Your task to perform on an android device: Show me the alarms in the clock app Image 0: 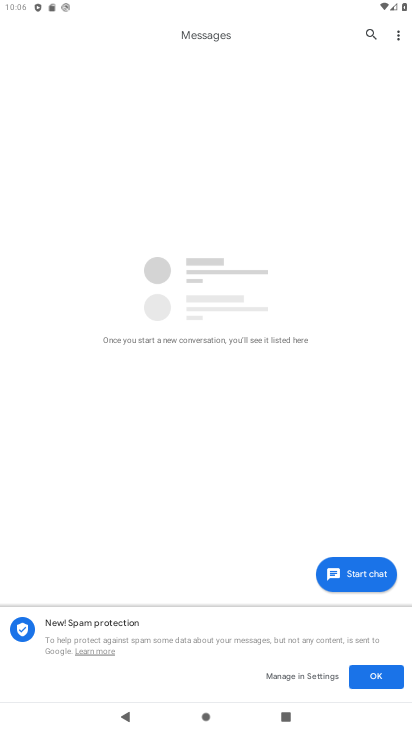
Step 0: press home button
Your task to perform on an android device: Show me the alarms in the clock app Image 1: 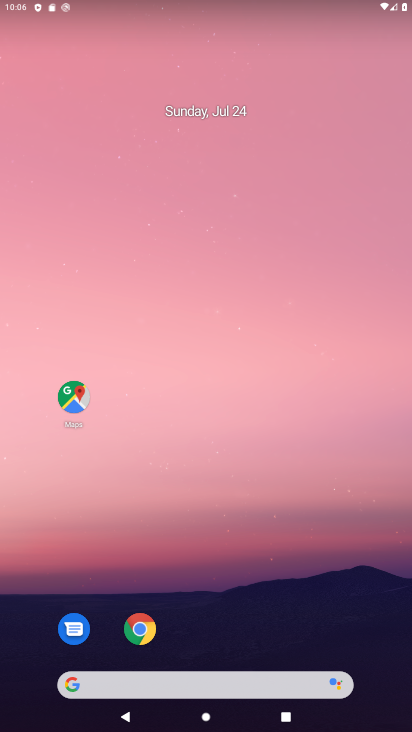
Step 1: drag from (186, 689) to (253, 51)
Your task to perform on an android device: Show me the alarms in the clock app Image 2: 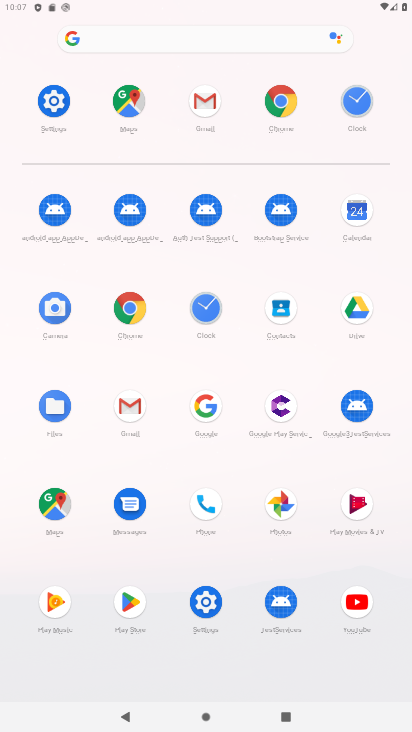
Step 2: click (358, 103)
Your task to perform on an android device: Show me the alarms in the clock app Image 3: 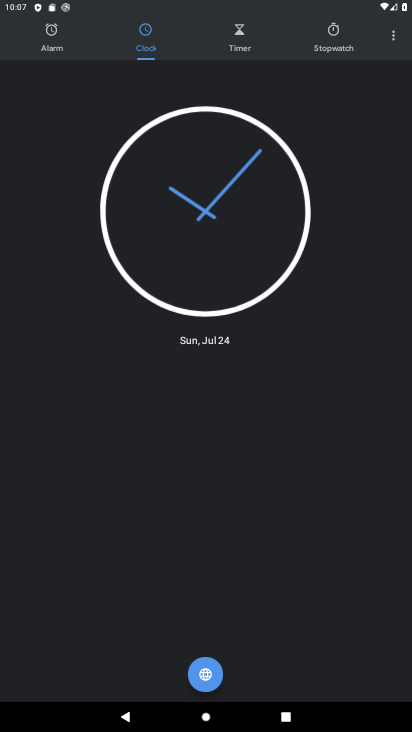
Step 3: click (54, 30)
Your task to perform on an android device: Show me the alarms in the clock app Image 4: 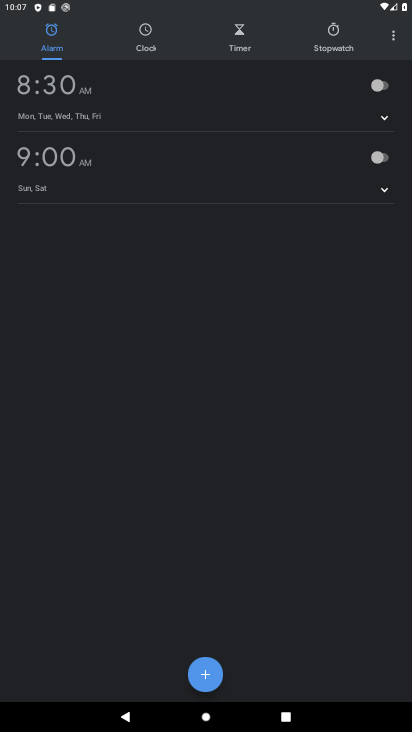
Step 4: click (205, 484)
Your task to perform on an android device: Show me the alarms in the clock app Image 5: 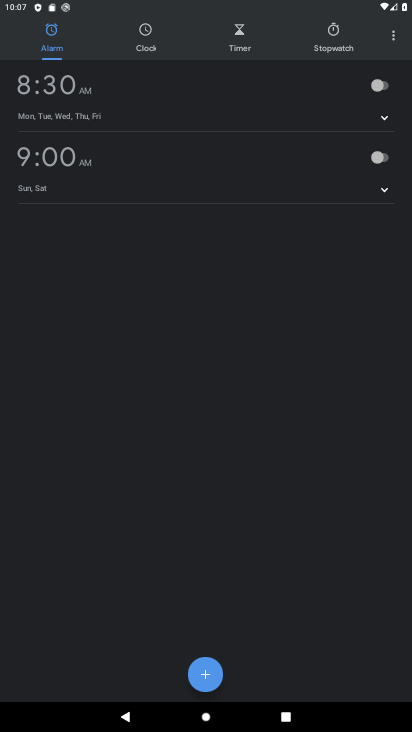
Step 5: click (206, 673)
Your task to perform on an android device: Show me the alarms in the clock app Image 6: 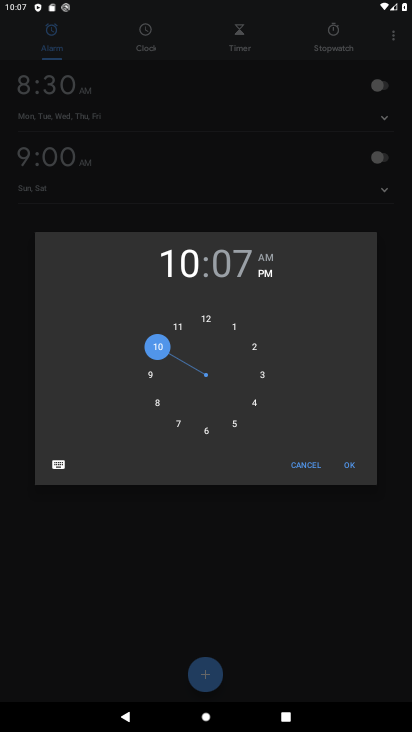
Step 6: click (206, 429)
Your task to perform on an android device: Show me the alarms in the clock app Image 7: 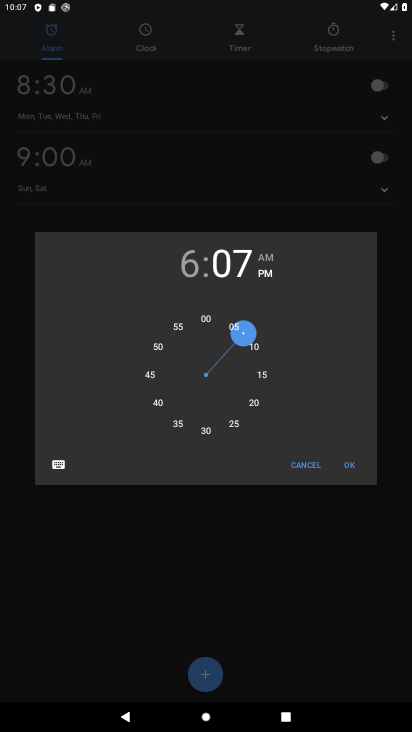
Step 7: click (181, 333)
Your task to perform on an android device: Show me the alarms in the clock app Image 8: 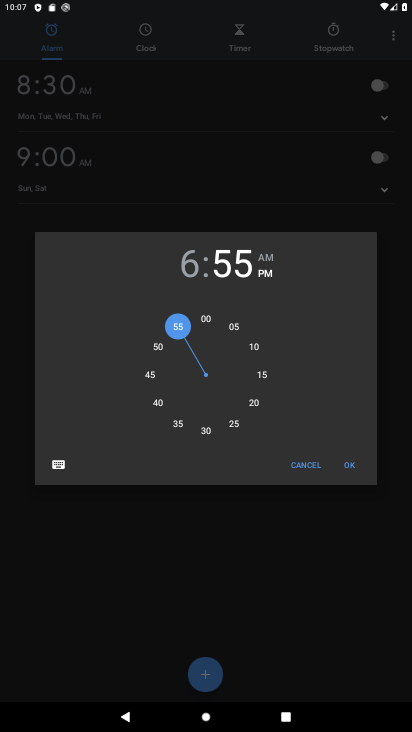
Step 8: click (354, 464)
Your task to perform on an android device: Show me the alarms in the clock app Image 9: 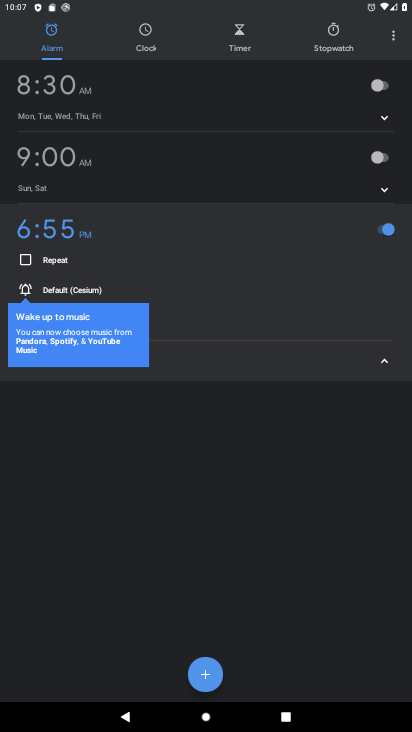
Step 9: task complete